Your task to perform on an android device: Do I have any events today? Image 0: 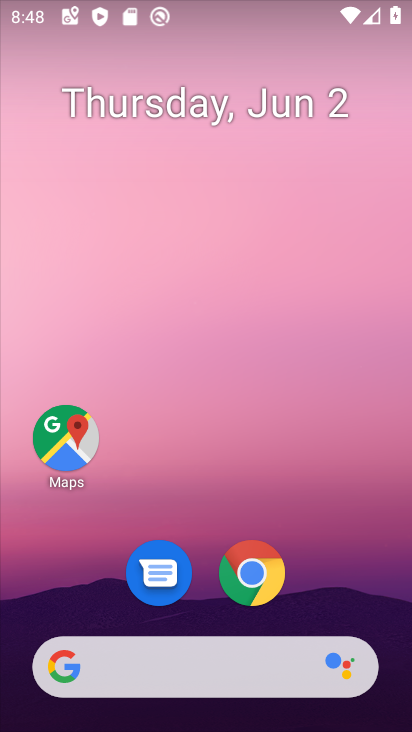
Step 0: press home button
Your task to perform on an android device: Do I have any events today? Image 1: 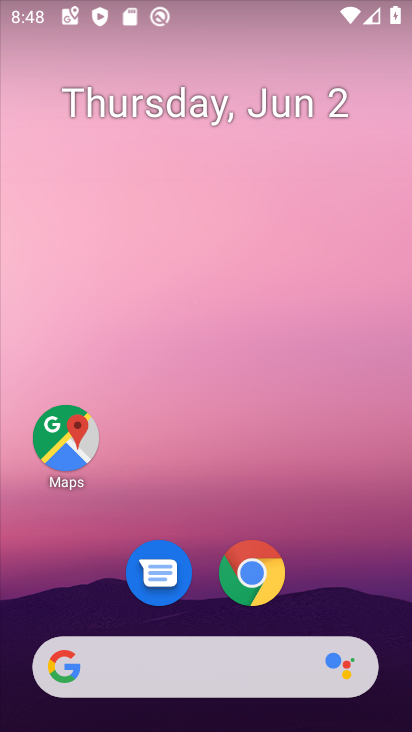
Step 1: drag from (338, 584) to (273, 8)
Your task to perform on an android device: Do I have any events today? Image 2: 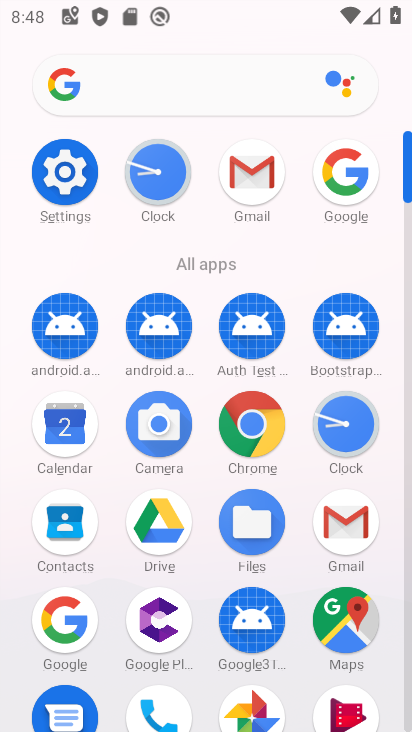
Step 2: click (85, 414)
Your task to perform on an android device: Do I have any events today? Image 3: 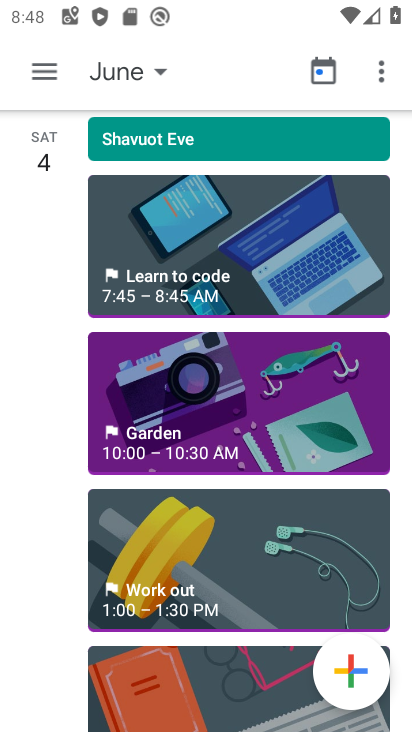
Step 3: task complete